Your task to perform on an android device: empty trash in google photos Image 0: 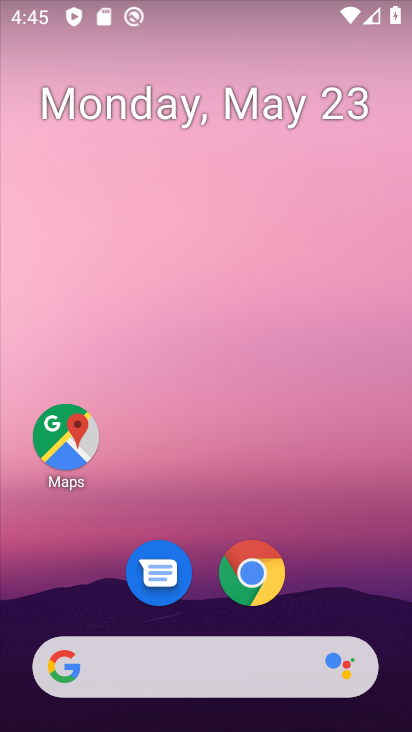
Step 0: drag from (337, 495) to (262, 38)
Your task to perform on an android device: empty trash in google photos Image 1: 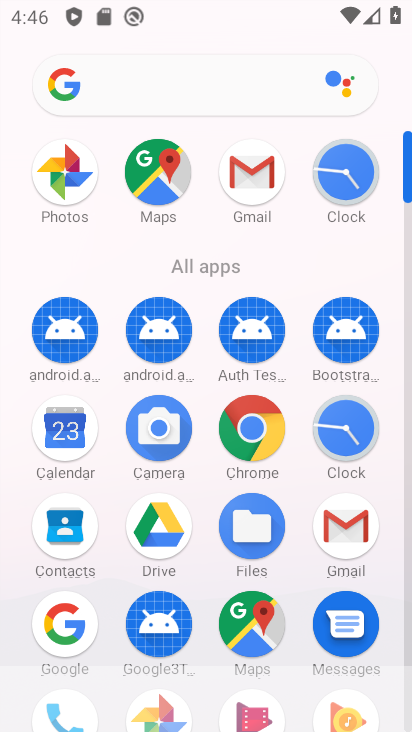
Step 1: click (64, 169)
Your task to perform on an android device: empty trash in google photos Image 2: 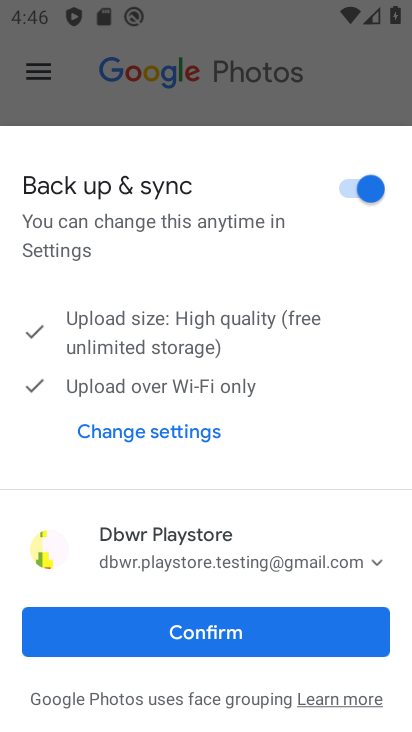
Step 2: click (272, 641)
Your task to perform on an android device: empty trash in google photos Image 3: 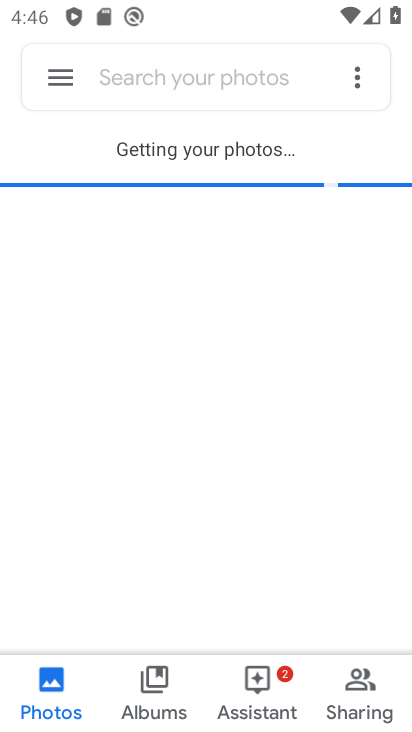
Step 3: click (52, 78)
Your task to perform on an android device: empty trash in google photos Image 4: 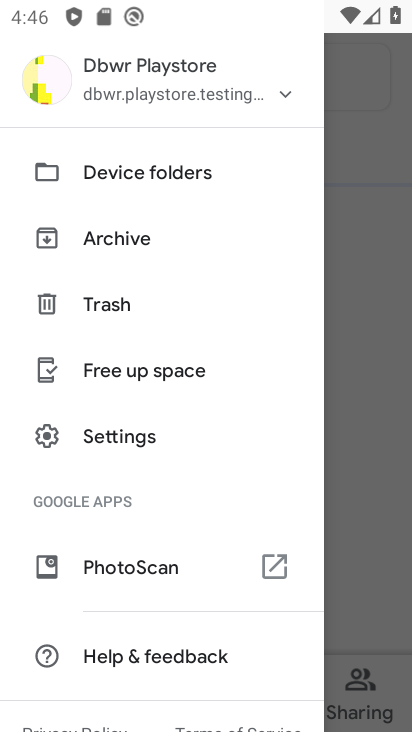
Step 4: click (123, 308)
Your task to perform on an android device: empty trash in google photos Image 5: 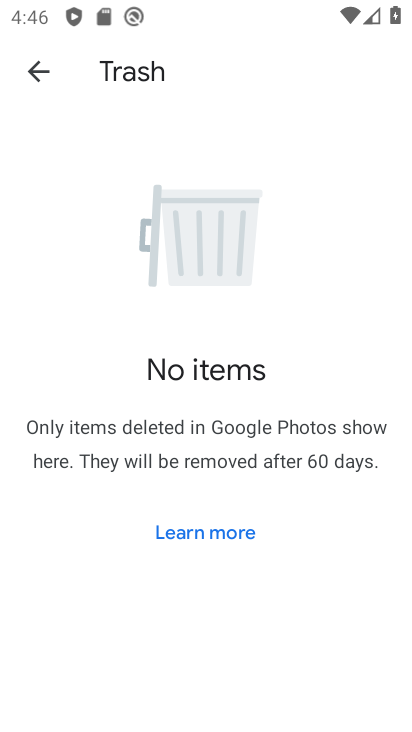
Step 5: task complete